Your task to perform on an android device: change keyboard looks Image 0: 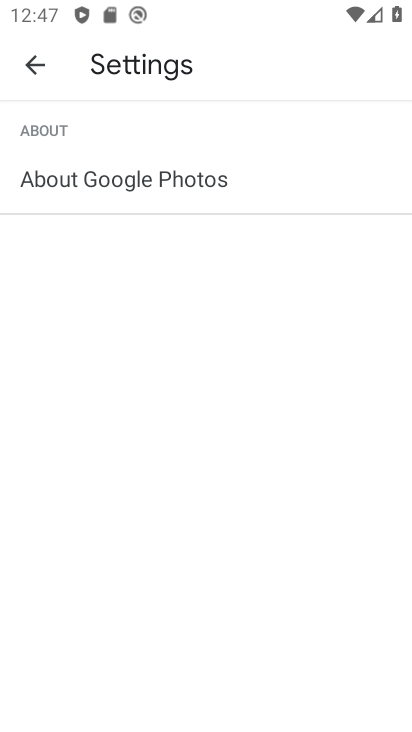
Step 0: press home button
Your task to perform on an android device: change keyboard looks Image 1: 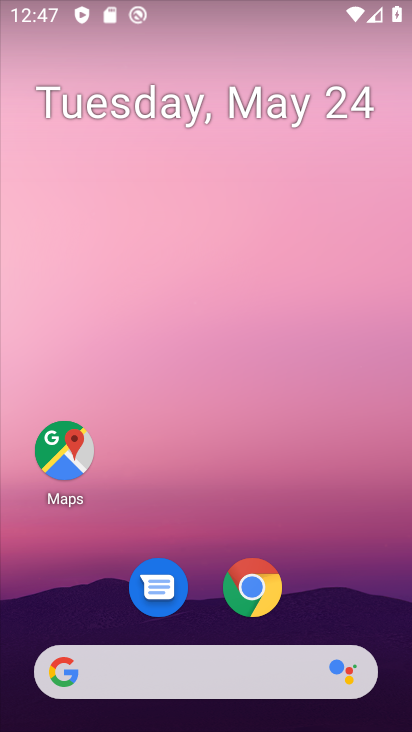
Step 1: drag from (183, 668) to (172, 125)
Your task to perform on an android device: change keyboard looks Image 2: 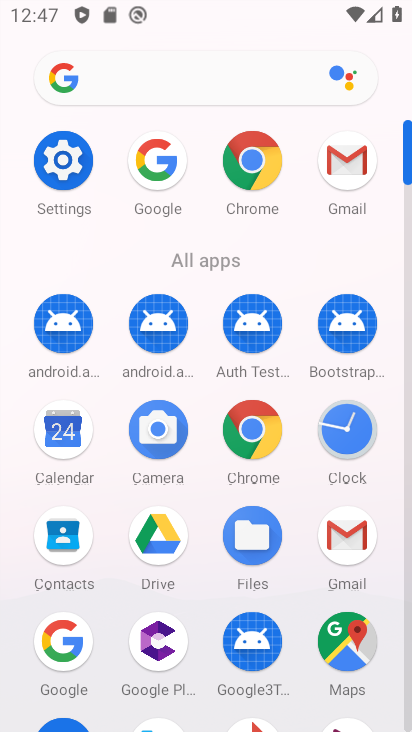
Step 2: click (57, 148)
Your task to perform on an android device: change keyboard looks Image 3: 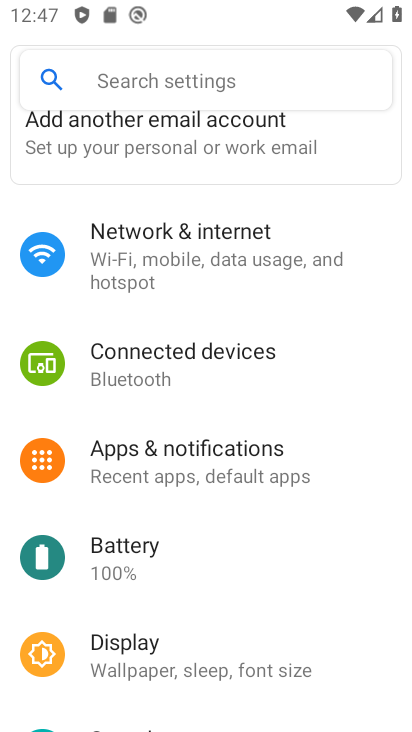
Step 3: drag from (143, 593) to (66, 0)
Your task to perform on an android device: change keyboard looks Image 4: 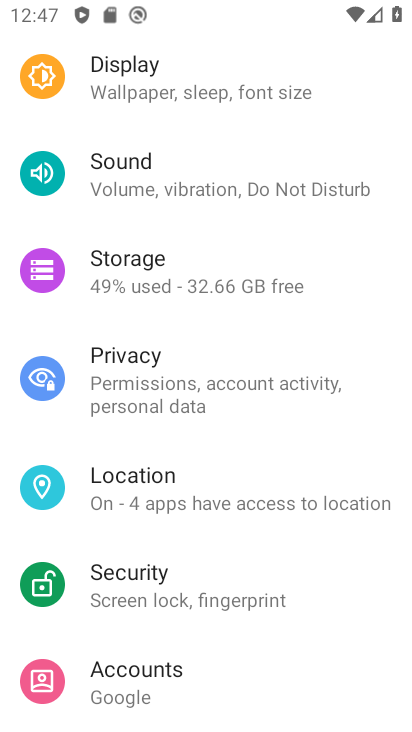
Step 4: drag from (221, 600) to (240, 121)
Your task to perform on an android device: change keyboard looks Image 5: 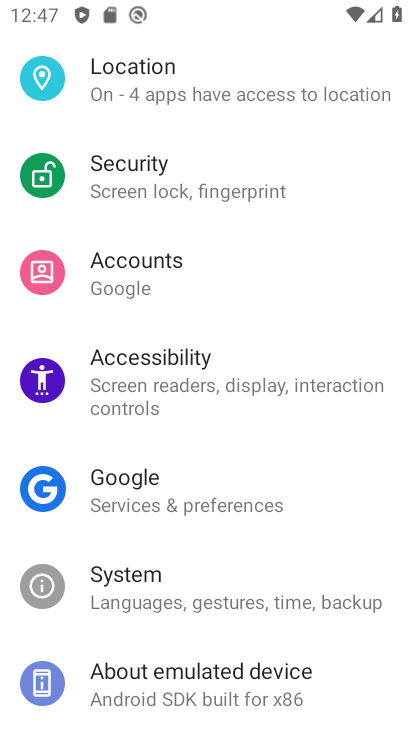
Step 5: click (159, 604)
Your task to perform on an android device: change keyboard looks Image 6: 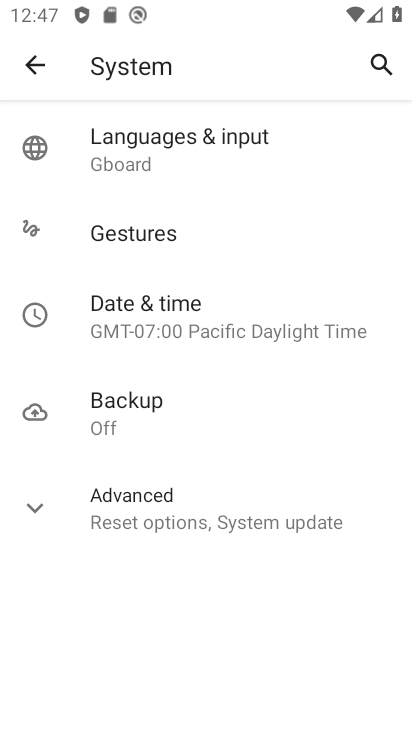
Step 6: click (169, 140)
Your task to perform on an android device: change keyboard looks Image 7: 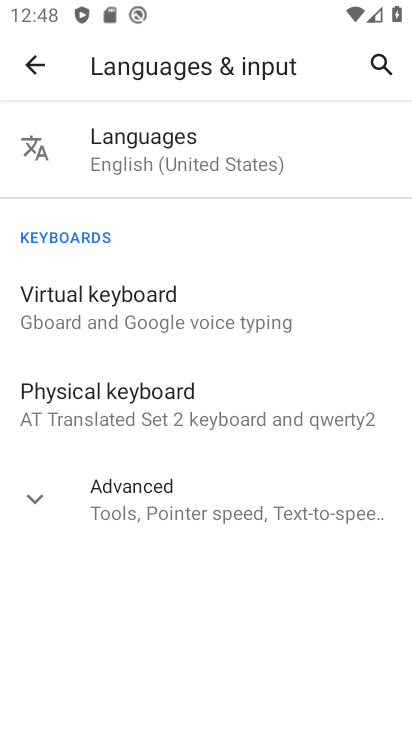
Step 7: click (148, 317)
Your task to perform on an android device: change keyboard looks Image 8: 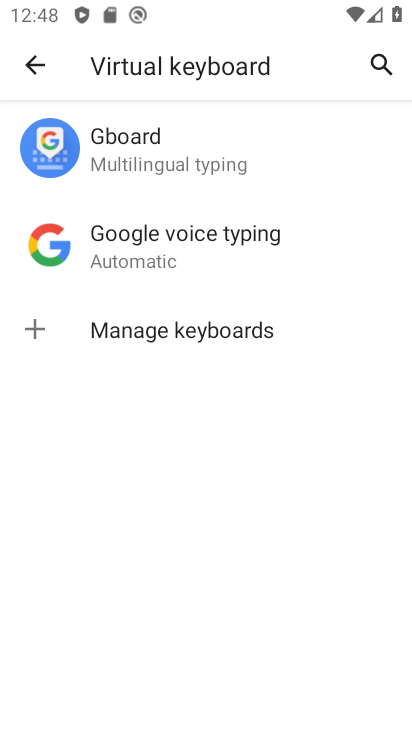
Step 8: click (129, 160)
Your task to perform on an android device: change keyboard looks Image 9: 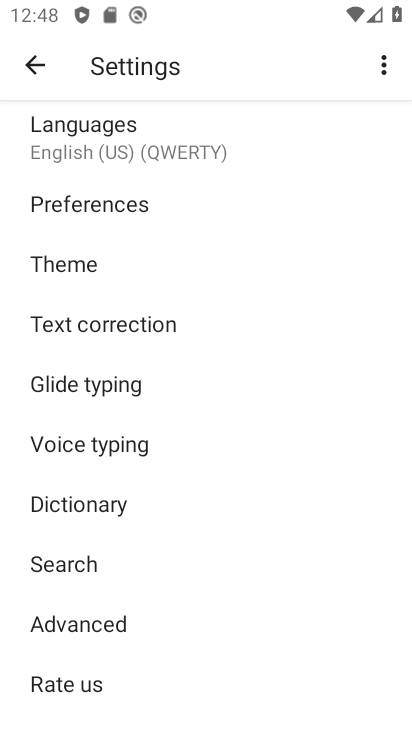
Step 9: click (127, 152)
Your task to perform on an android device: change keyboard looks Image 10: 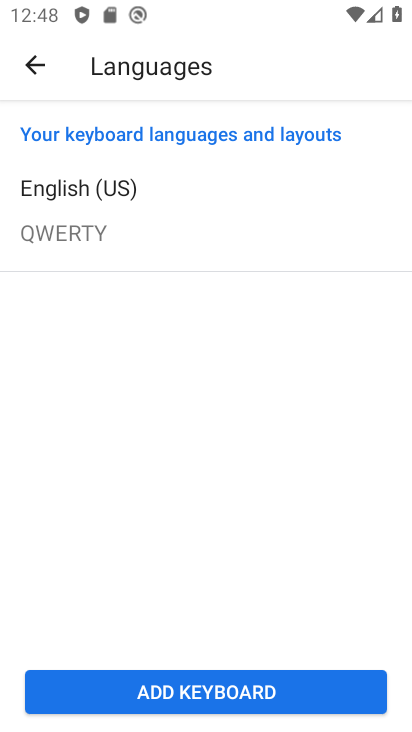
Step 10: click (49, 69)
Your task to perform on an android device: change keyboard looks Image 11: 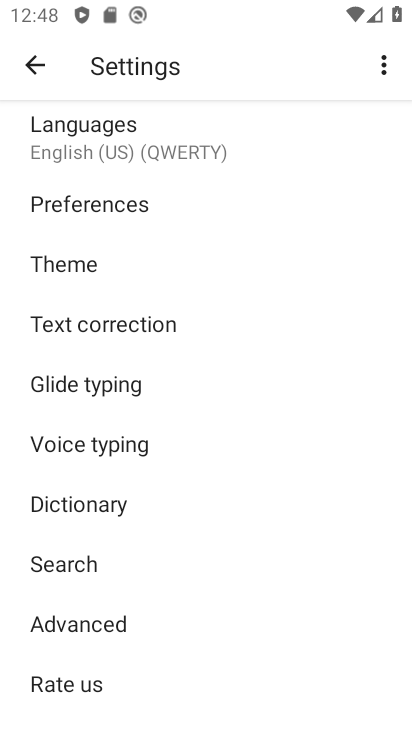
Step 11: click (92, 271)
Your task to perform on an android device: change keyboard looks Image 12: 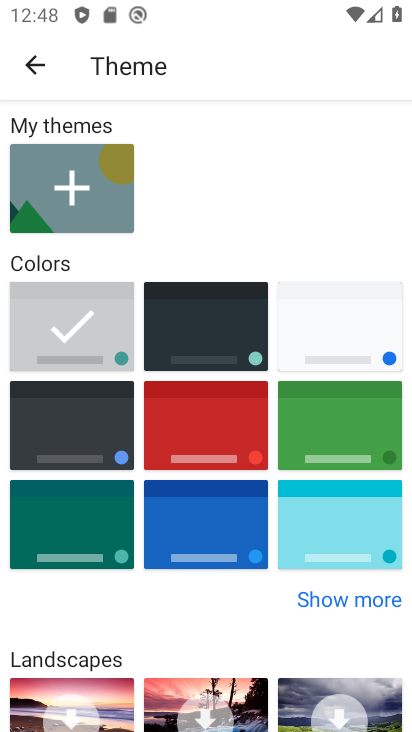
Step 12: click (94, 420)
Your task to perform on an android device: change keyboard looks Image 13: 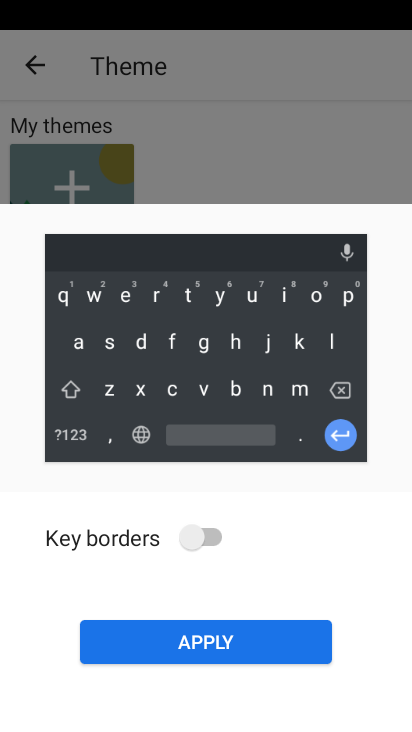
Step 13: click (216, 656)
Your task to perform on an android device: change keyboard looks Image 14: 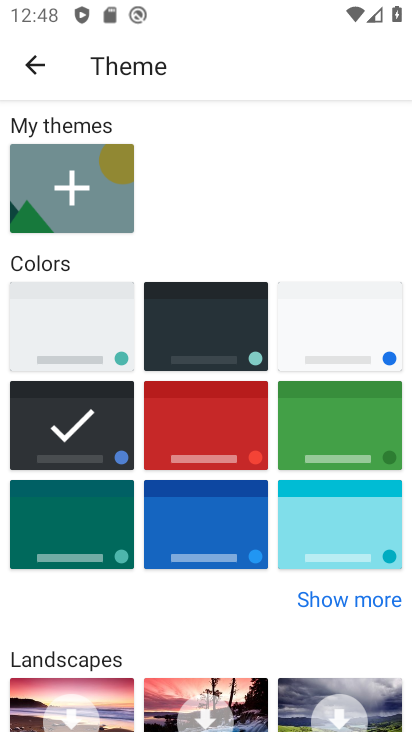
Step 14: task complete